Your task to perform on an android device: Search for pizza restaurants on Maps Image 0: 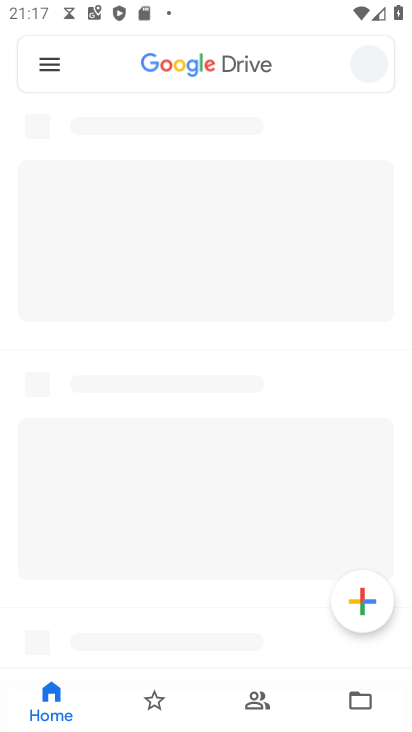
Step 0: drag from (217, 599) to (233, 146)
Your task to perform on an android device: Search for pizza restaurants on Maps Image 1: 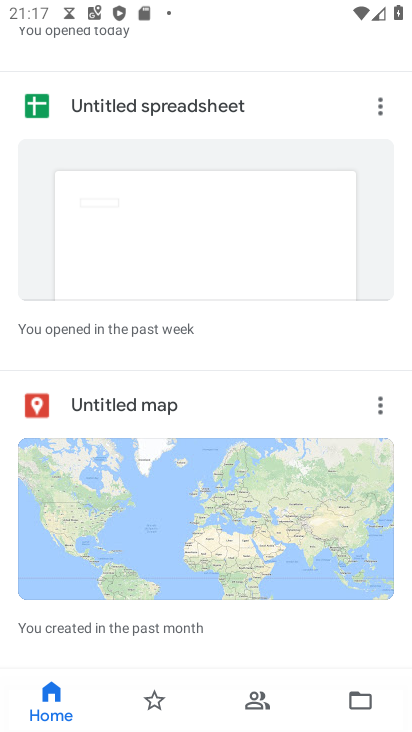
Step 1: press home button
Your task to perform on an android device: Search for pizza restaurants on Maps Image 2: 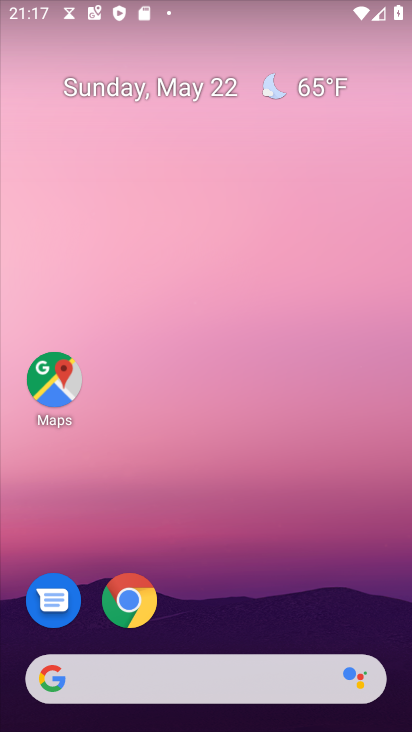
Step 2: drag from (233, 594) to (244, 259)
Your task to perform on an android device: Search for pizza restaurants on Maps Image 3: 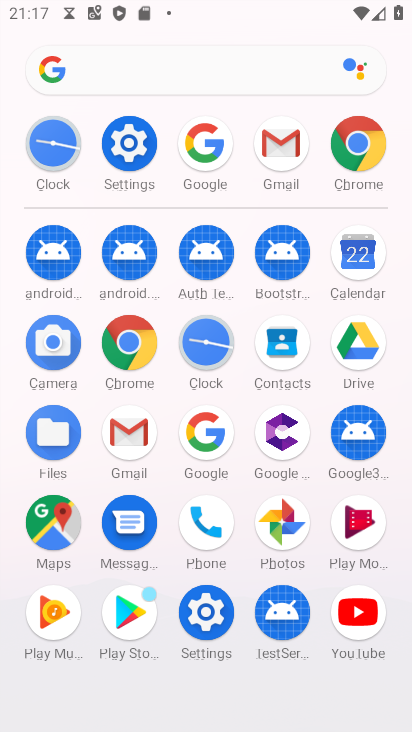
Step 3: click (54, 551)
Your task to perform on an android device: Search for pizza restaurants on Maps Image 4: 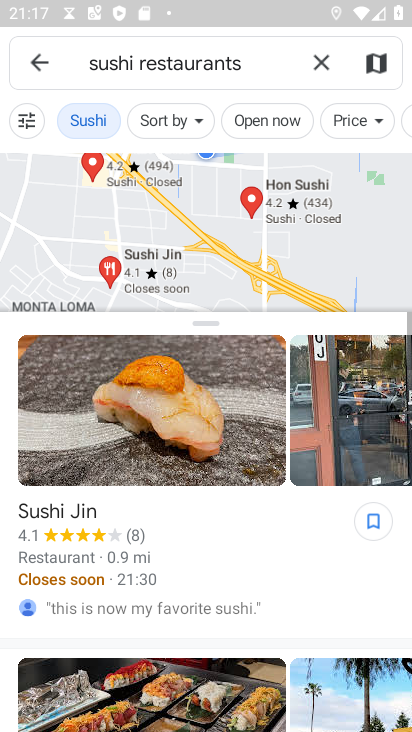
Step 4: click (336, 69)
Your task to perform on an android device: Search for pizza restaurants on Maps Image 5: 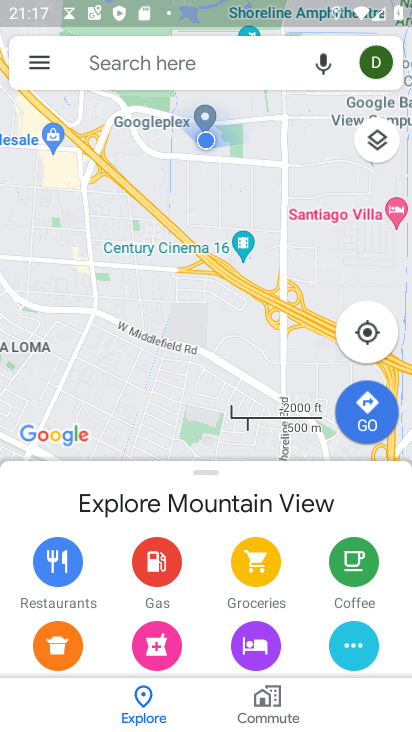
Step 5: click (243, 62)
Your task to perform on an android device: Search for pizza restaurants on Maps Image 6: 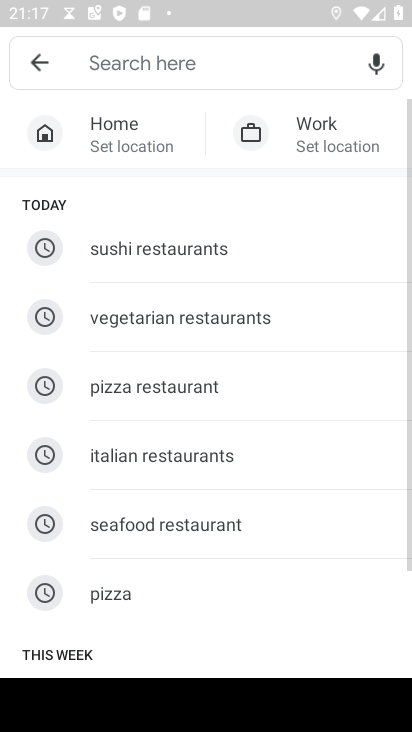
Step 6: click (182, 392)
Your task to perform on an android device: Search for pizza restaurants on Maps Image 7: 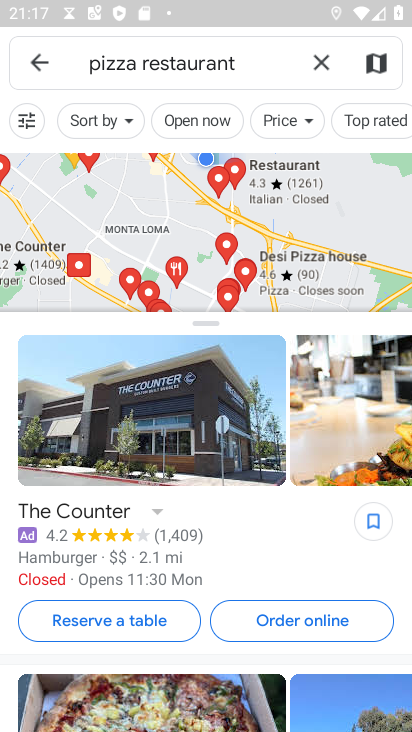
Step 7: task complete